Your task to perform on an android device: Show me popular games on the Play Store Image 0: 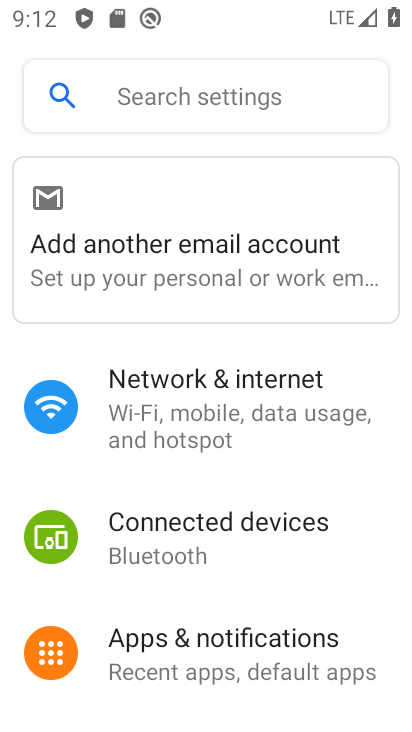
Step 0: drag from (151, 569) to (265, 239)
Your task to perform on an android device: Show me popular games on the Play Store Image 1: 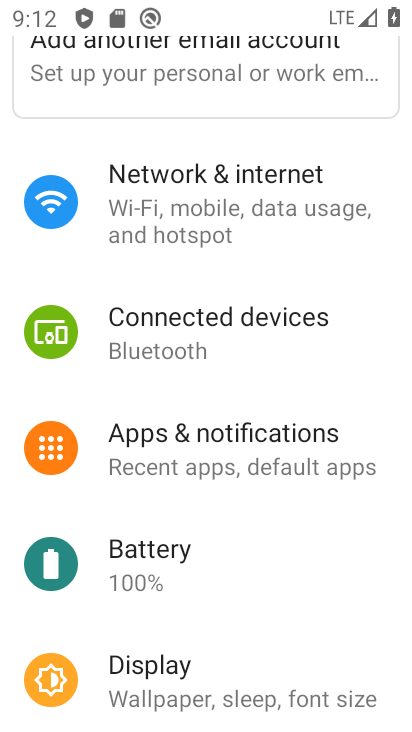
Step 1: press home button
Your task to perform on an android device: Show me popular games on the Play Store Image 2: 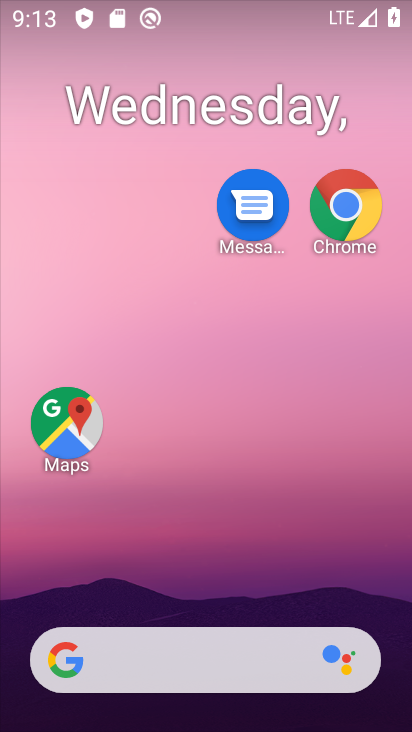
Step 2: drag from (188, 618) to (302, 31)
Your task to perform on an android device: Show me popular games on the Play Store Image 3: 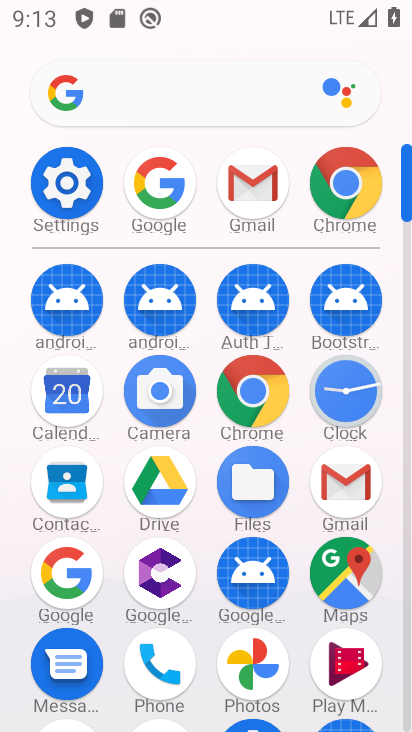
Step 3: drag from (198, 626) to (217, 126)
Your task to perform on an android device: Show me popular games on the Play Store Image 4: 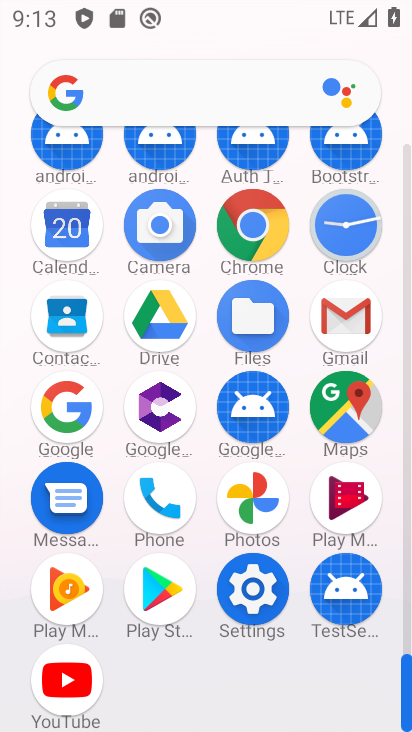
Step 4: click (157, 598)
Your task to perform on an android device: Show me popular games on the Play Store Image 5: 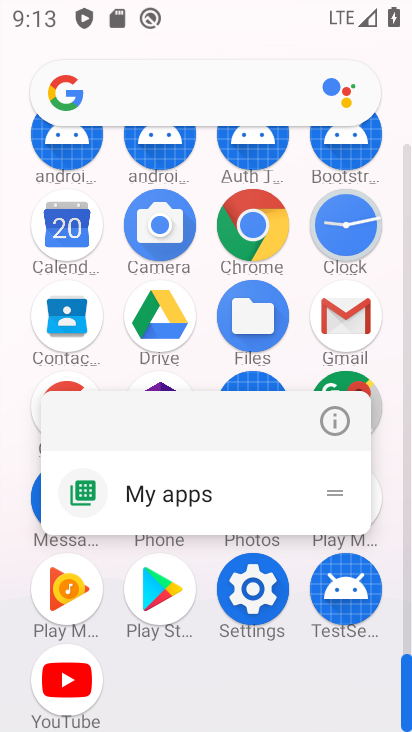
Step 5: click (330, 416)
Your task to perform on an android device: Show me popular games on the Play Store Image 6: 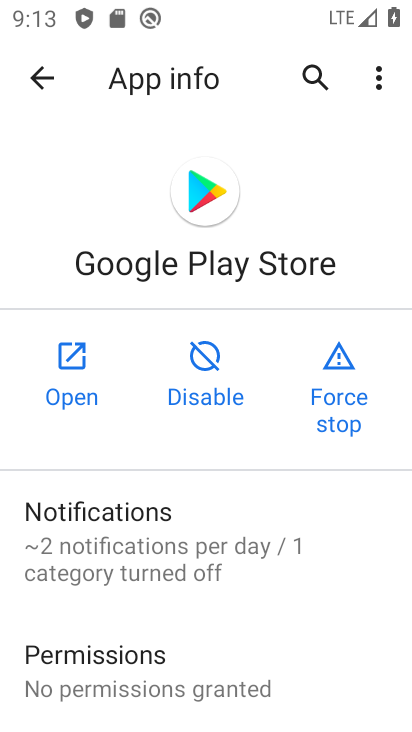
Step 6: click (76, 383)
Your task to perform on an android device: Show me popular games on the Play Store Image 7: 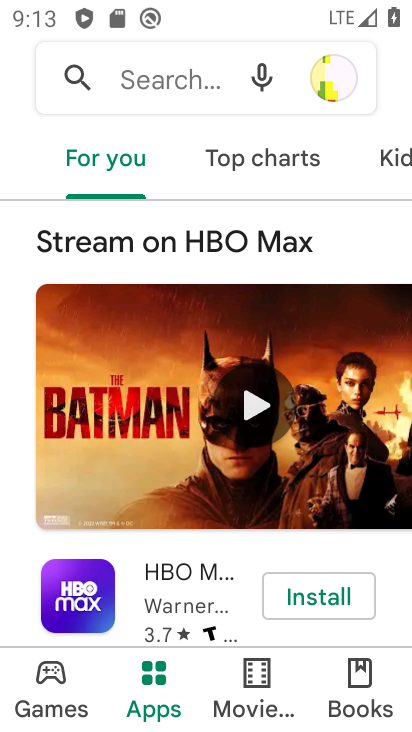
Step 7: click (129, 77)
Your task to perform on an android device: Show me popular games on the Play Store Image 8: 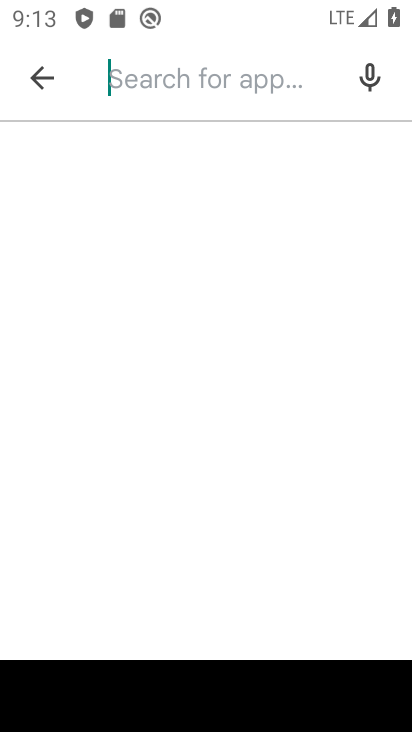
Step 8: type "games"
Your task to perform on an android device: Show me popular games on the Play Store Image 9: 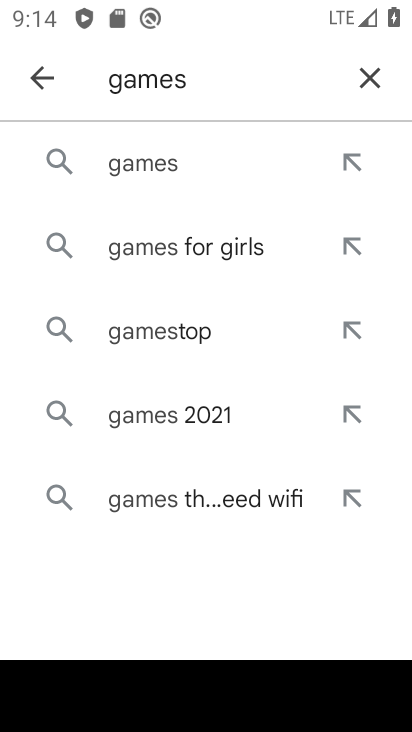
Step 9: click (155, 154)
Your task to perform on an android device: Show me popular games on the Play Store Image 10: 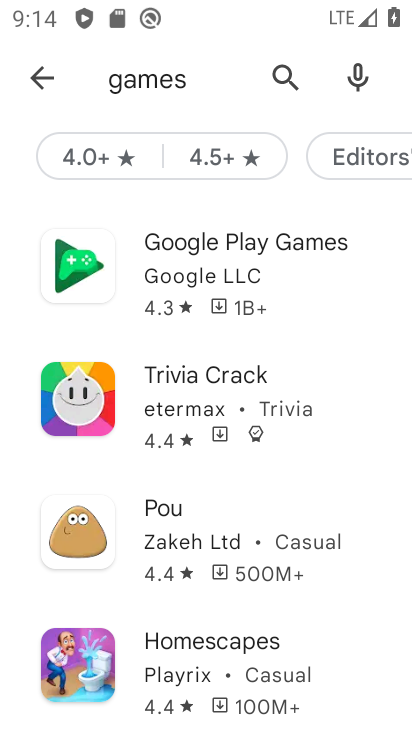
Step 10: task complete